Your task to perform on an android device: Set the phone to "Do not disturb". Image 0: 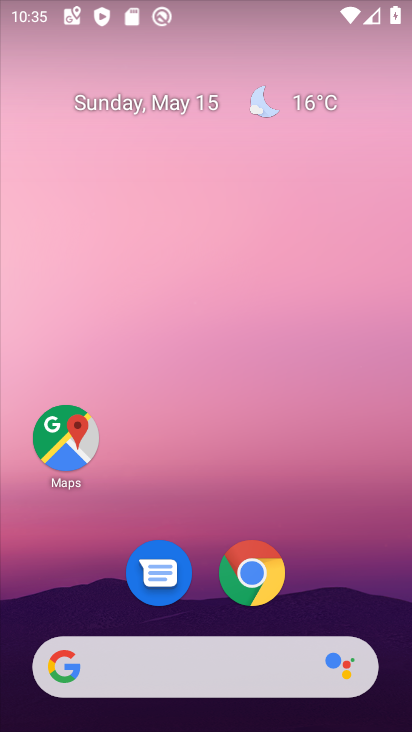
Step 0: press home button
Your task to perform on an android device: Set the phone to "Do not disturb". Image 1: 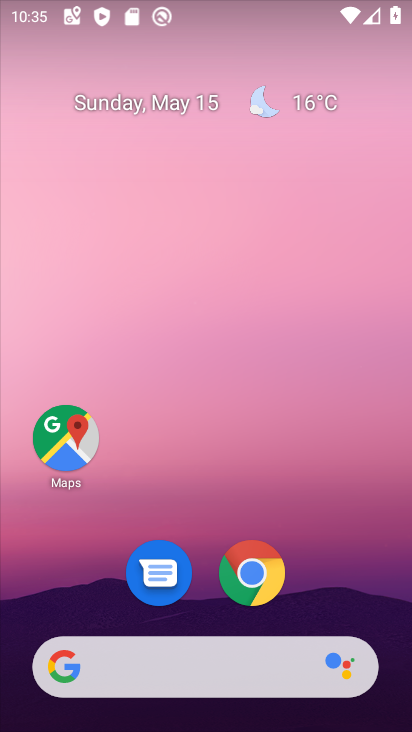
Step 1: drag from (360, 572) to (296, 136)
Your task to perform on an android device: Set the phone to "Do not disturb". Image 2: 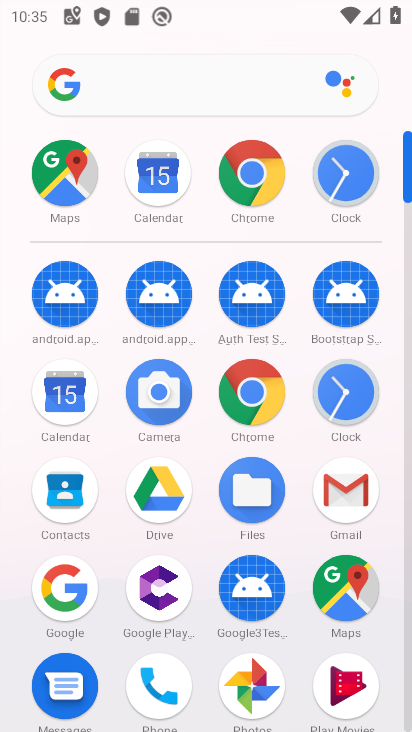
Step 2: drag from (271, 3) to (298, 717)
Your task to perform on an android device: Set the phone to "Do not disturb". Image 3: 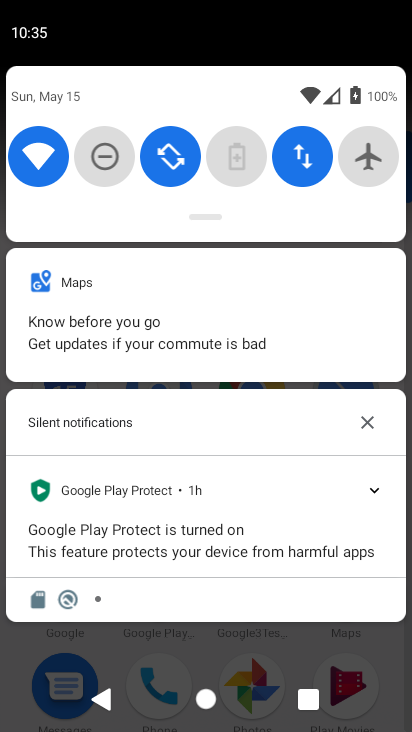
Step 3: click (97, 145)
Your task to perform on an android device: Set the phone to "Do not disturb". Image 4: 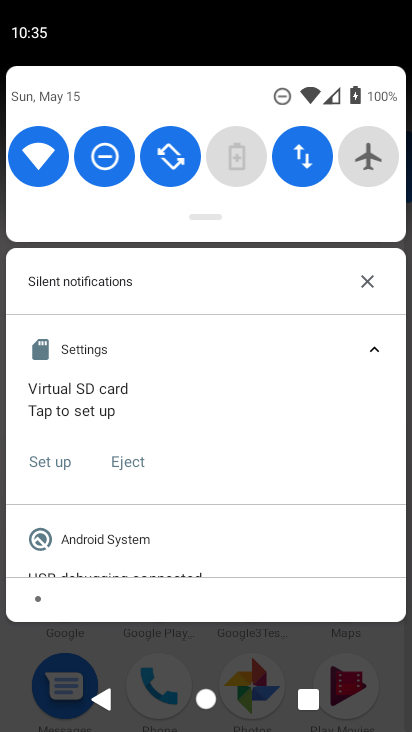
Step 4: task complete